Your task to perform on an android device: turn off sleep mode Image 0: 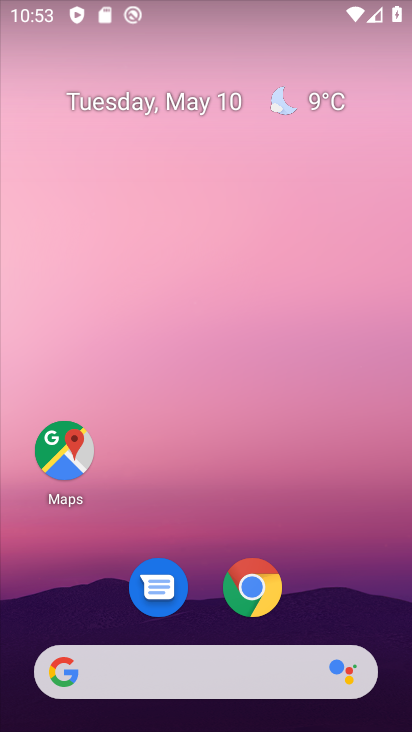
Step 0: drag from (337, 568) to (407, 0)
Your task to perform on an android device: turn off sleep mode Image 1: 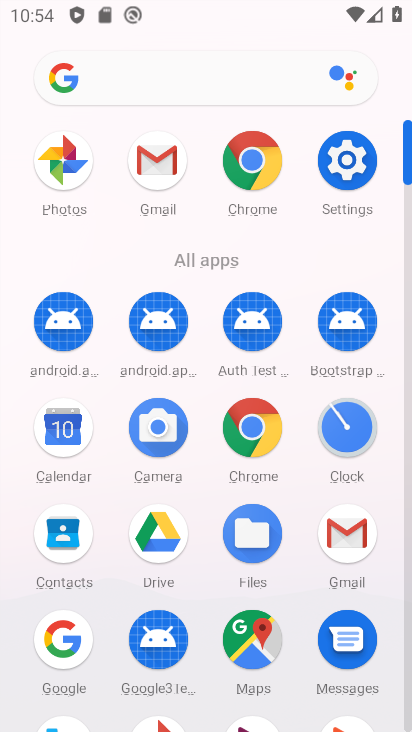
Step 1: click (356, 165)
Your task to perform on an android device: turn off sleep mode Image 2: 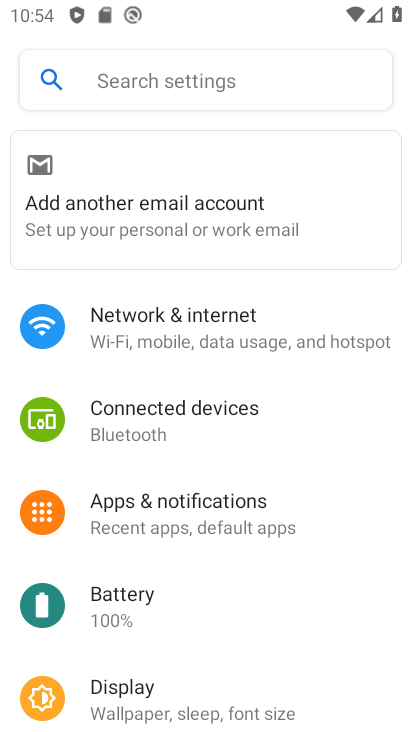
Step 2: click (120, 699)
Your task to perform on an android device: turn off sleep mode Image 3: 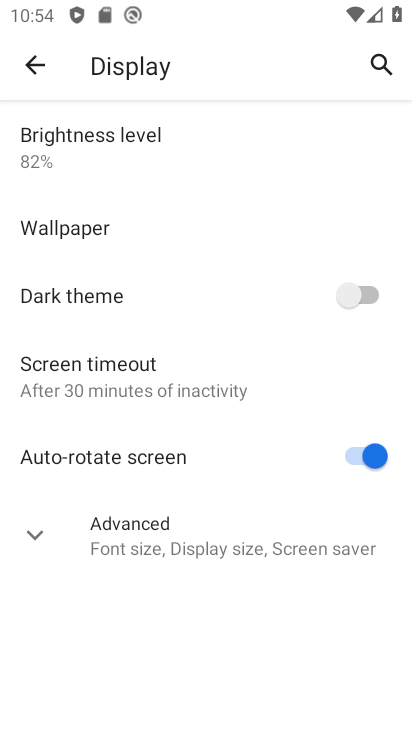
Step 3: click (33, 535)
Your task to perform on an android device: turn off sleep mode Image 4: 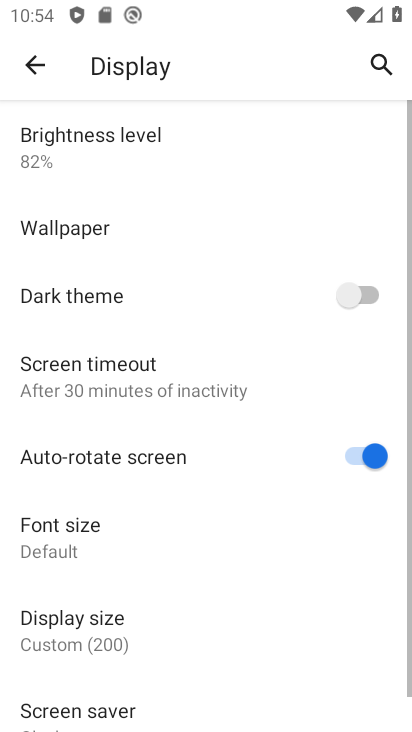
Step 4: task complete